Your task to perform on an android device: find which apps use the phone's location Image 0: 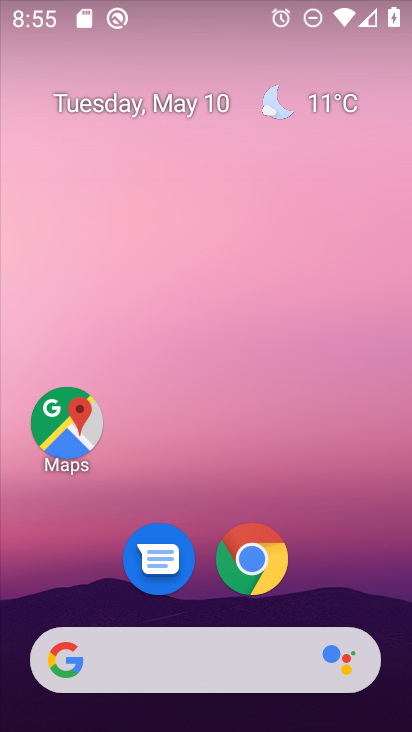
Step 0: drag from (217, 724) to (222, 101)
Your task to perform on an android device: find which apps use the phone's location Image 1: 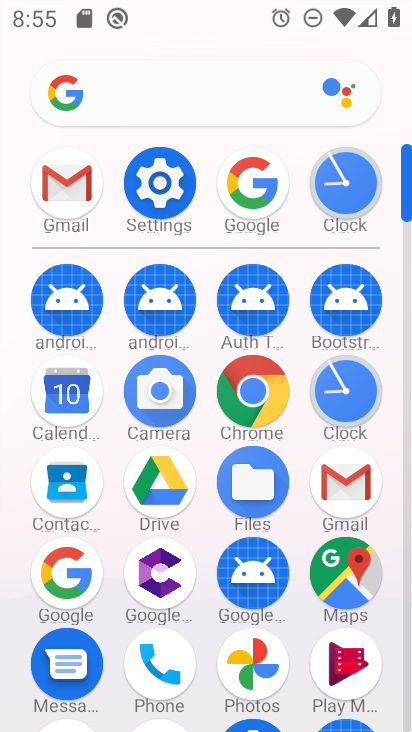
Step 1: click (153, 187)
Your task to perform on an android device: find which apps use the phone's location Image 2: 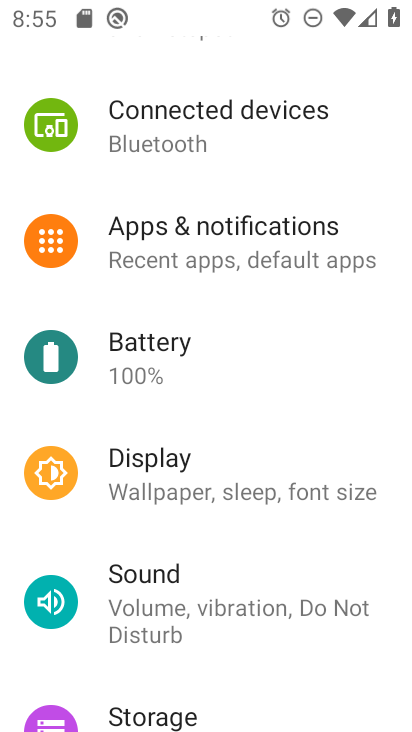
Step 2: click (240, 157)
Your task to perform on an android device: find which apps use the phone's location Image 3: 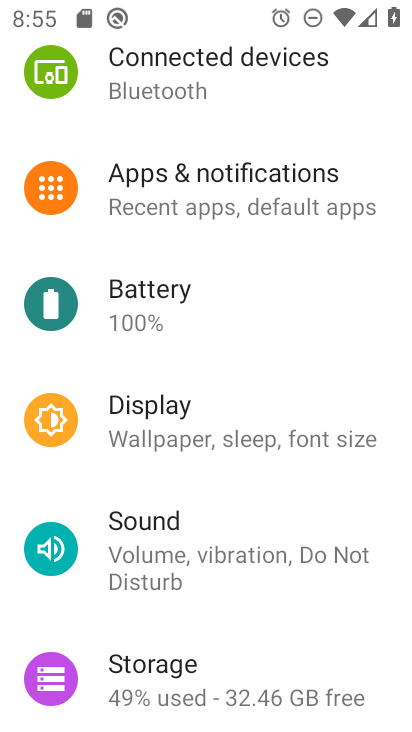
Step 3: drag from (237, 663) to (257, 155)
Your task to perform on an android device: find which apps use the phone's location Image 4: 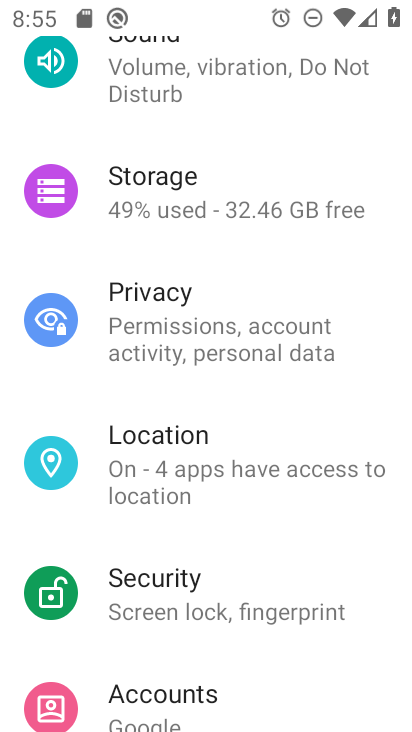
Step 4: click (165, 476)
Your task to perform on an android device: find which apps use the phone's location Image 5: 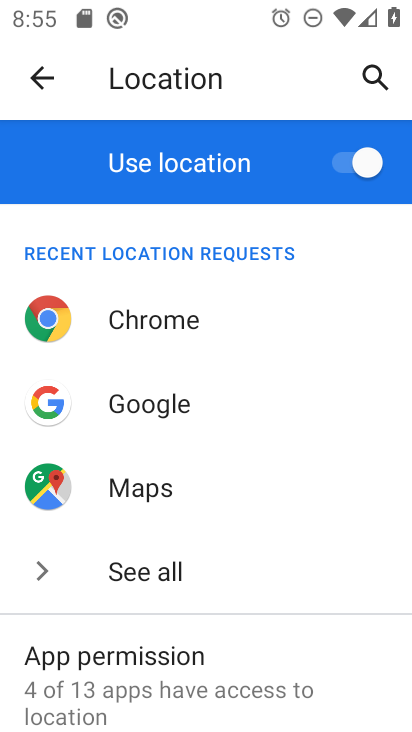
Step 5: drag from (182, 710) to (231, 467)
Your task to perform on an android device: find which apps use the phone's location Image 6: 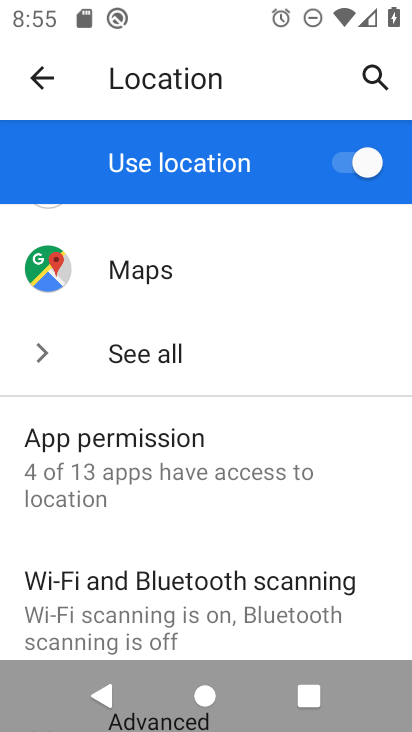
Step 6: click (135, 447)
Your task to perform on an android device: find which apps use the phone's location Image 7: 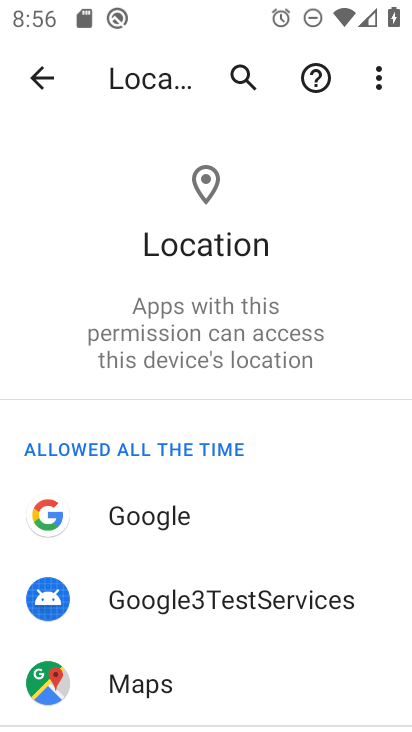
Step 7: task complete